Your task to perform on an android device: Is it going to rain tomorrow? Image 0: 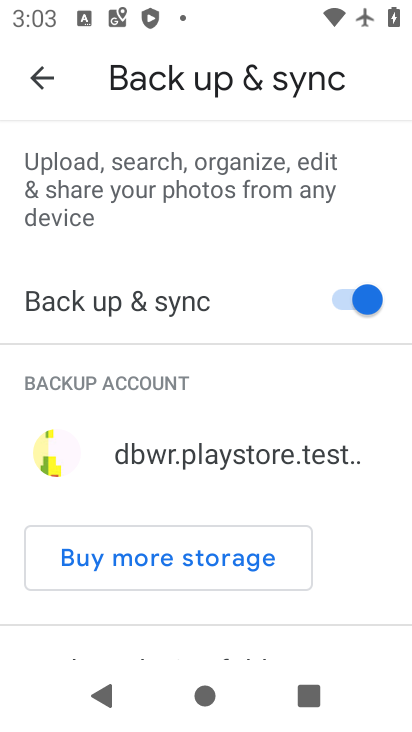
Step 0: press home button
Your task to perform on an android device: Is it going to rain tomorrow? Image 1: 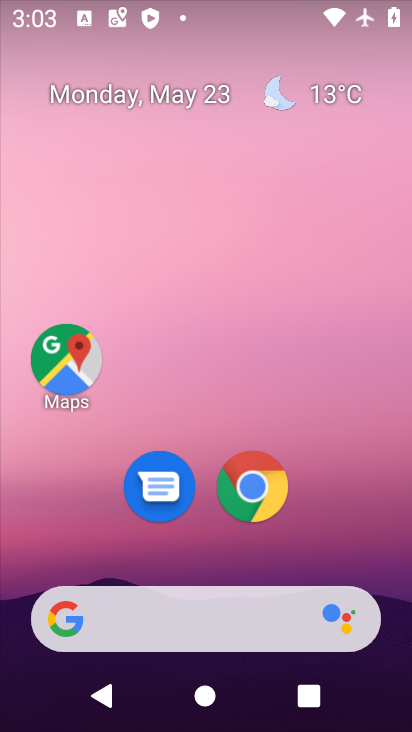
Step 1: click (312, 91)
Your task to perform on an android device: Is it going to rain tomorrow? Image 2: 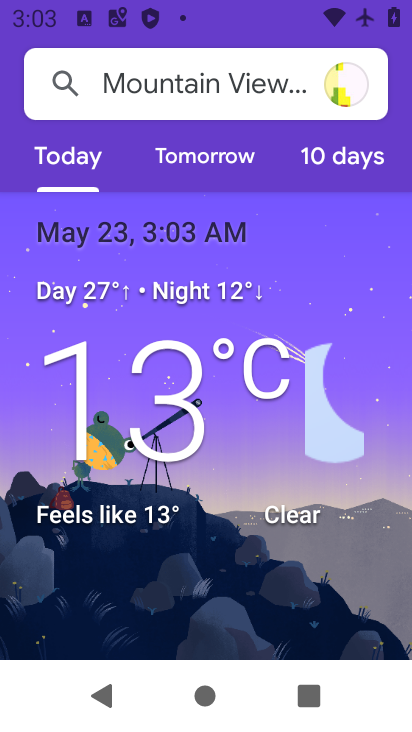
Step 2: click (202, 149)
Your task to perform on an android device: Is it going to rain tomorrow? Image 3: 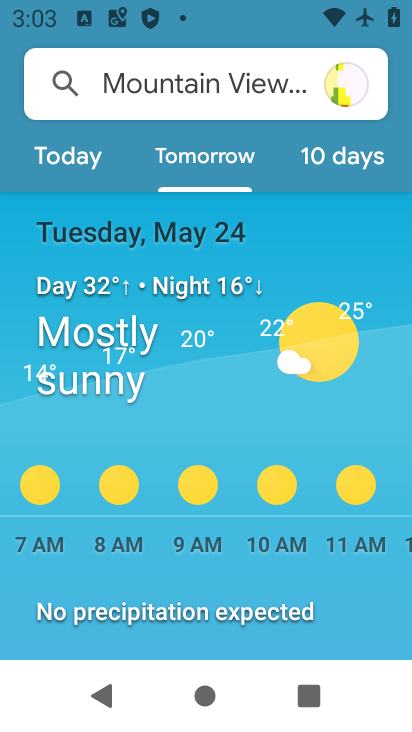
Step 3: task complete